Your task to perform on an android device: Search for vegetarian restaurants on Maps Image 0: 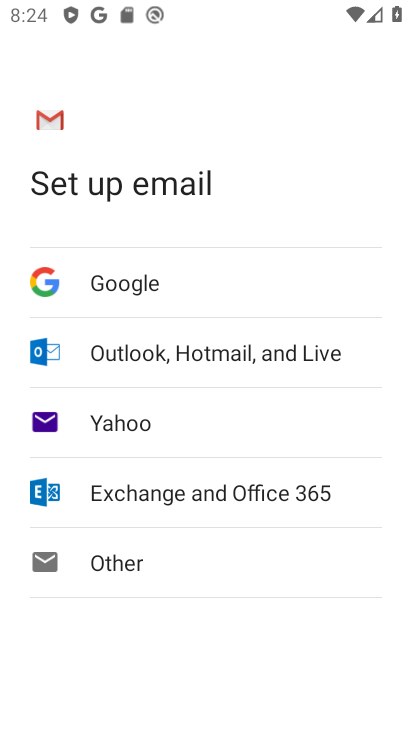
Step 0: press home button
Your task to perform on an android device: Search for vegetarian restaurants on Maps Image 1: 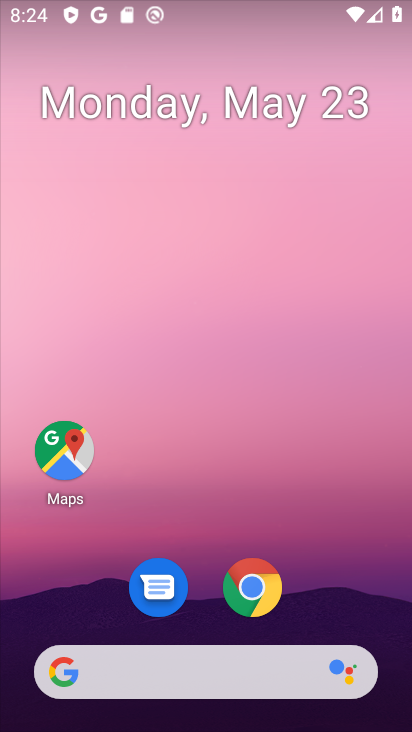
Step 1: click (77, 457)
Your task to perform on an android device: Search for vegetarian restaurants on Maps Image 2: 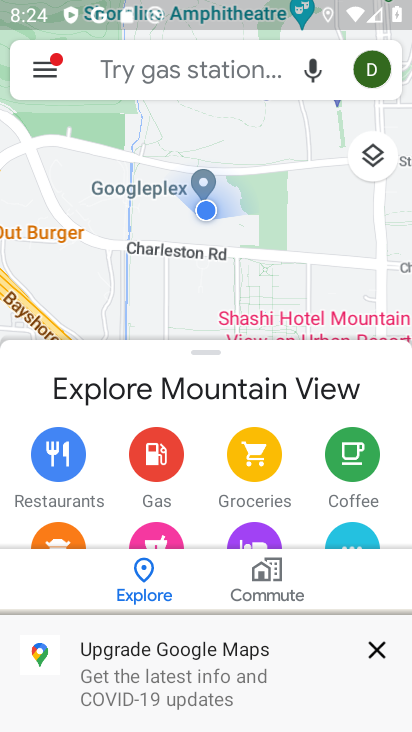
Step 2: click (155, 73)
Your task to perform on an android device: Search for vegetarian restaurants on Maps Image 3: 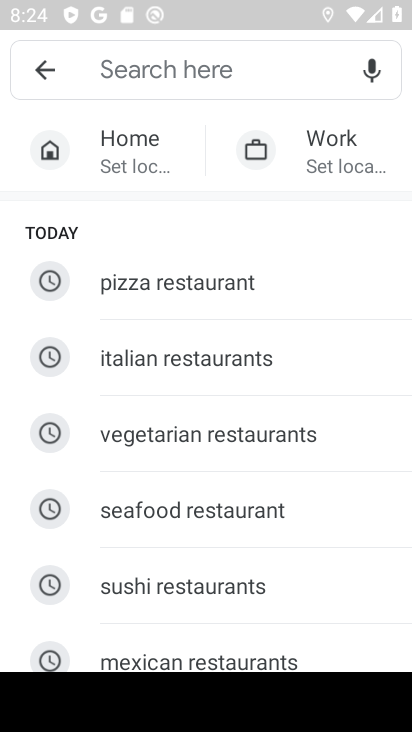
Step 3: click (164, 431)
Your task to perform on an android device: Search for vegetarian restaurants on Maps Image 4: 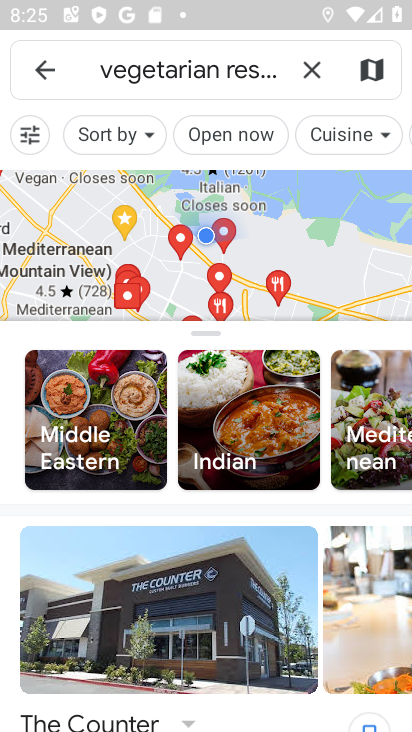
Step 4: task complete